Your task to perform on an android device: Is it going to rain tomorrow? Image 0: 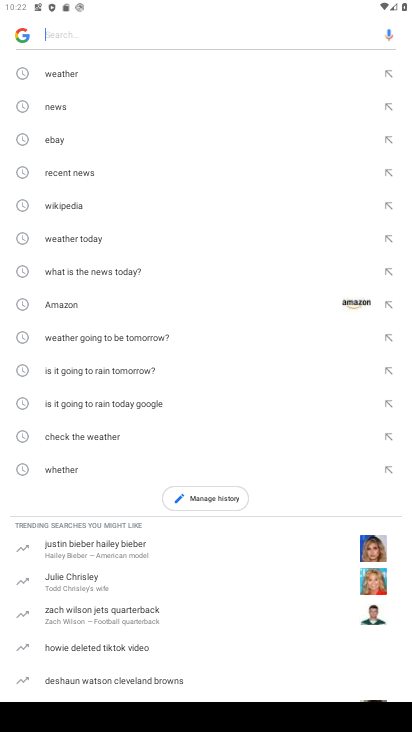
Step 0: press back button
Your task to perform on an android device: Is it going to rain tomorrow? Image 1: 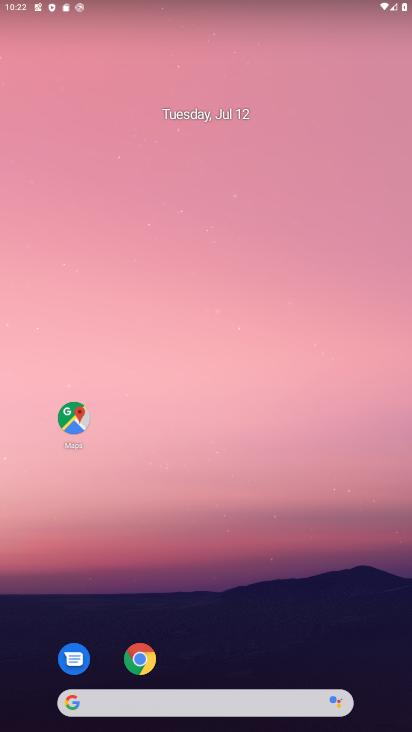
Step 1: task complete